Your task to perform on an android device: delete browsing data in the chrome app Image 0: 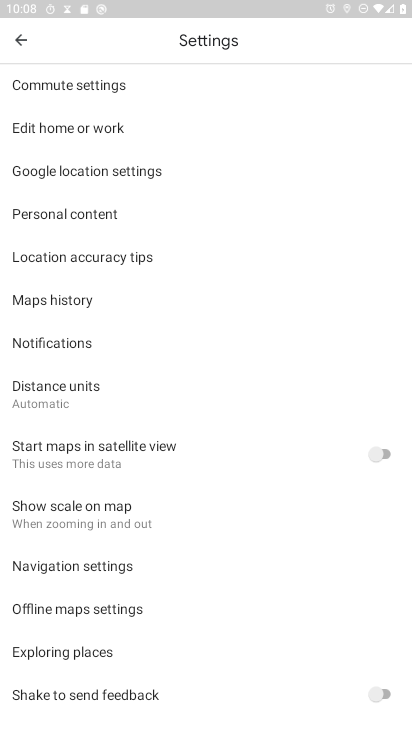
Step 0: press home button
Your task to perform on an android device: delete browsing data in the chrome app Image 1: 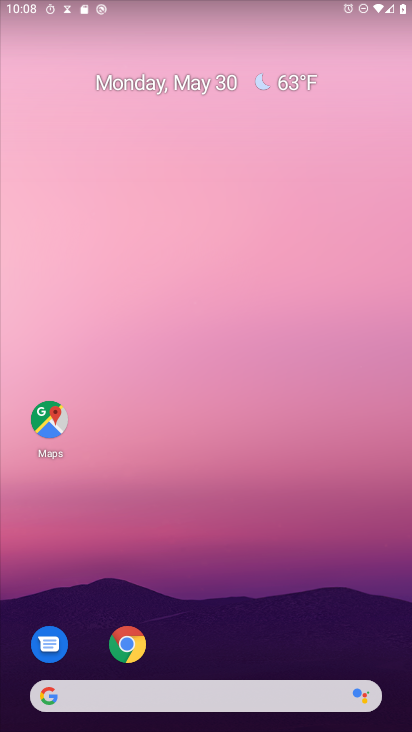
Step 1: click (130, 641)
Your task to perform on an android device: delete browsing data in the chrome app Image 2: 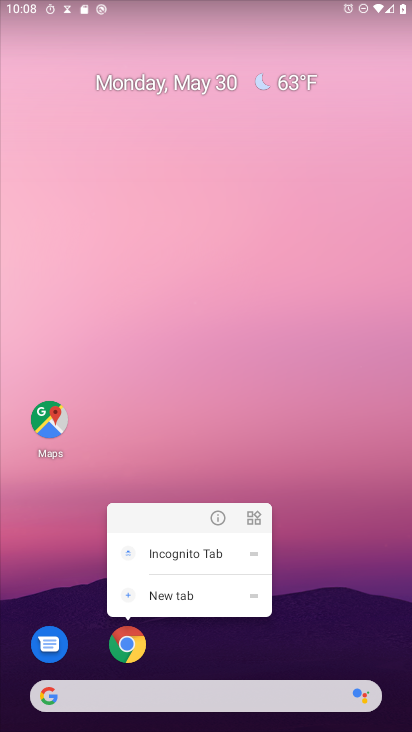
Step 2: click (133, 643)
Your task to perform on an android device: delete browsing data in the chrome app Image 3: 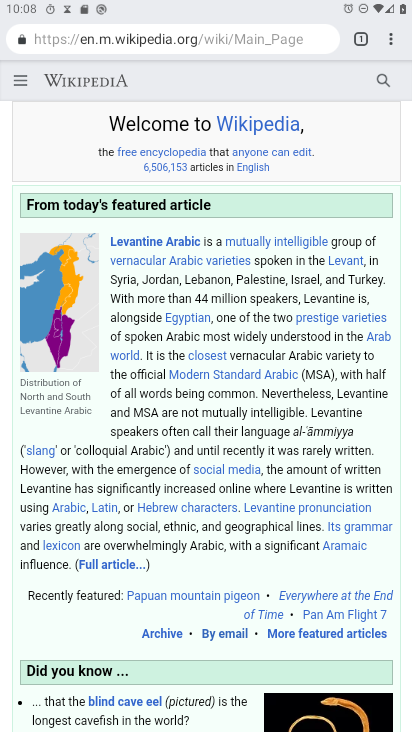
Step 3: click (383, 43)
Your task to perform on an android device: delete browsing data in the chrome app Image 4: 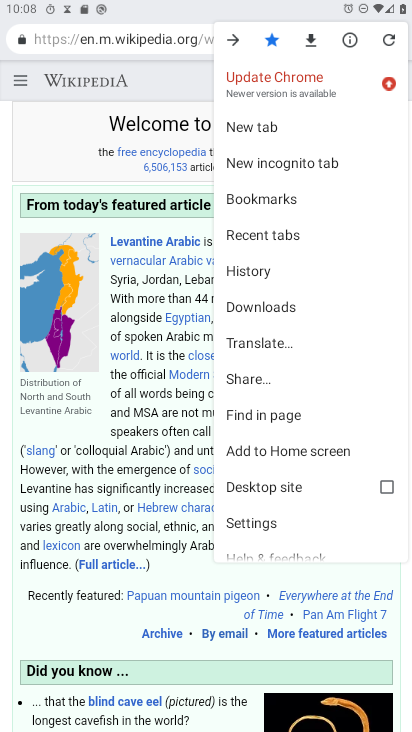
Step 4: click (258, 271)
Your task to perform on an android device: delete browsing data in the chrome app Image 5: 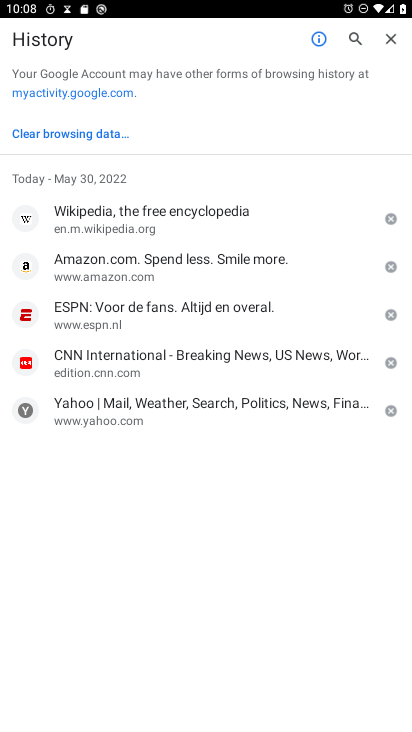
Step 5: click (108, 137)
Your task to perform on an android device: delete browsing data in the chrome app Image 6: 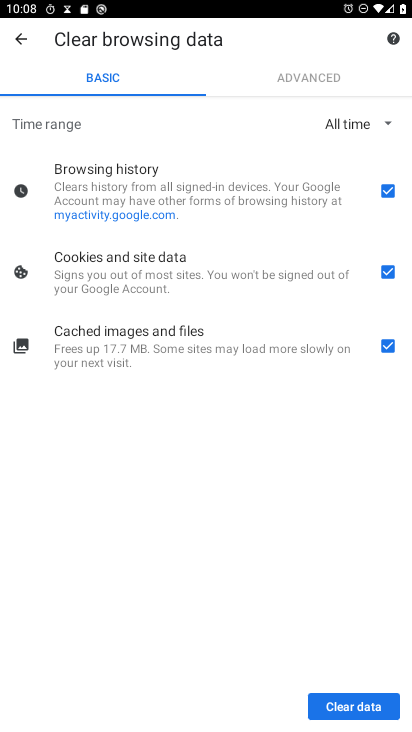
Step 6: click (383, 194)
Your task to perform on an android device: delete browsing data in the chrome app Image 7: 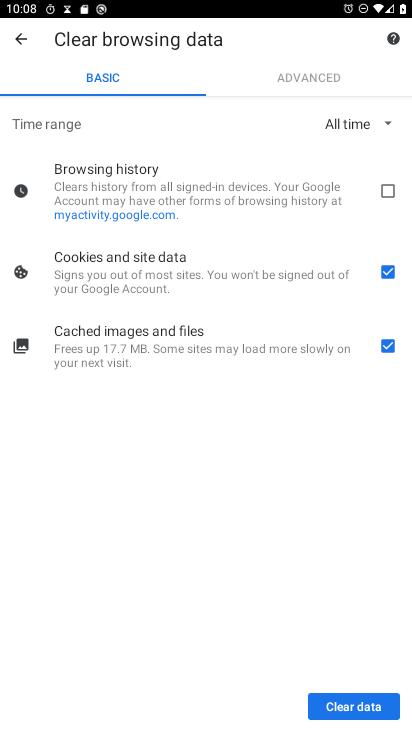
Step 7: click (386, 274)
Your task to perform on an android device: delete browsing data in the chrome app Image 8: 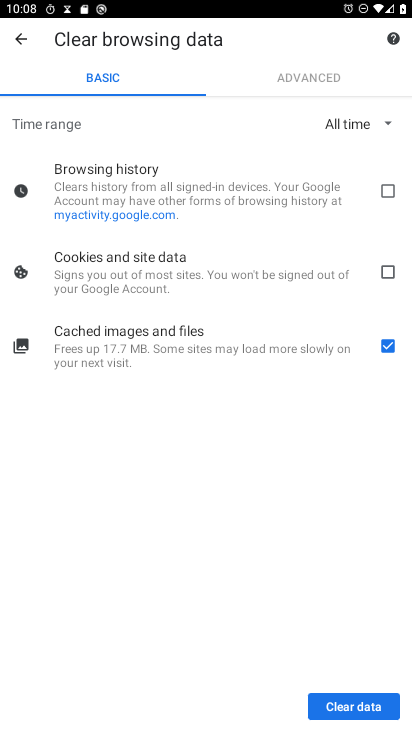
Step 8: click (388, 335)
Your task to perform on an android device: delete browsing data in the chrome app Image 9: 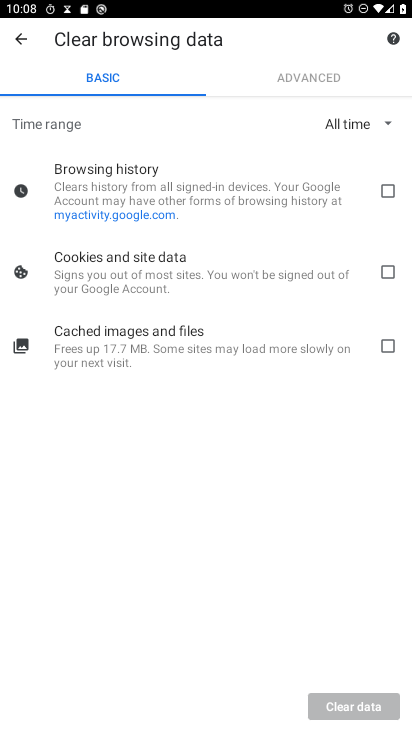
Step 9: click (386, 184)
Your task to perform on an android device: delete browsing data in the chrome app Image 10: 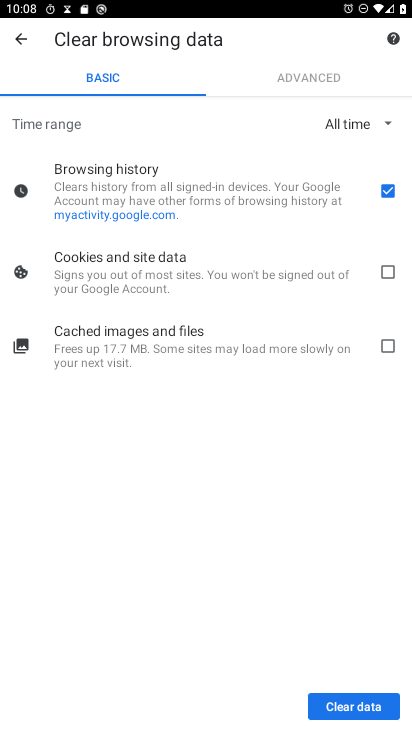
Step 10: task complete